Your task to perform on an android device: change your default location settings in chrome Image 0: 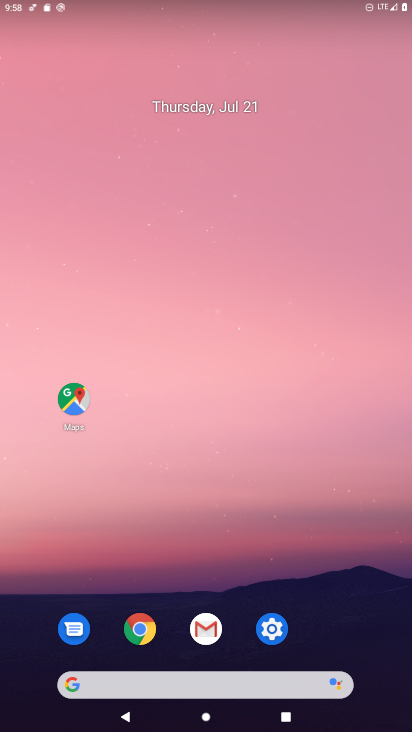
Step 0: click (130, 617)
Your task to perform on an android device: change your default location settings in chrome Image 1: 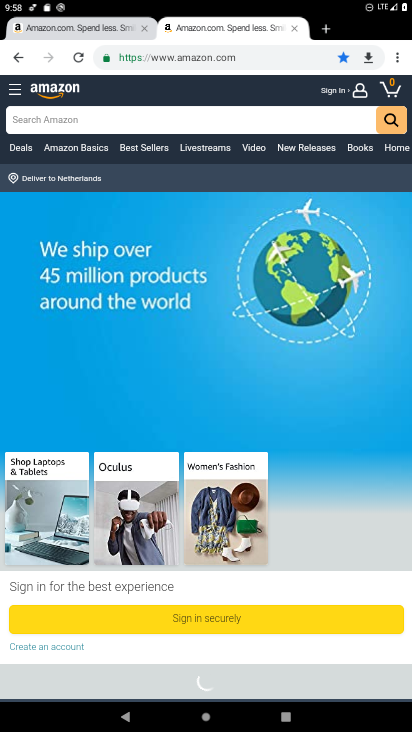
Step 1: click (399, 61)
Your task to perform on an android device: change your default location settings in chrome Image 2: 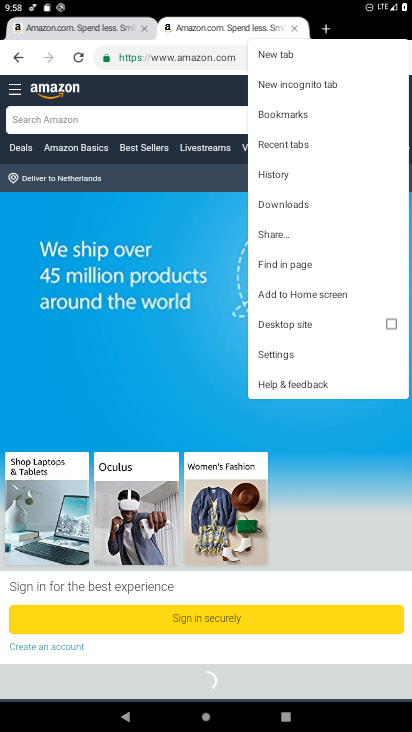
Step 2: click (278, 351)
Your task to perform on an android device: change your default location settings in chrome Image 3: 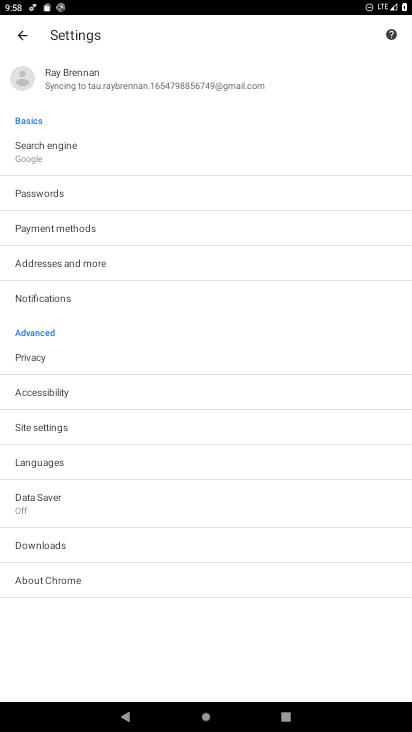
Step 3: click (42, 431)
Your task to perform on an android device: change your default location settings in chrome Image 4: 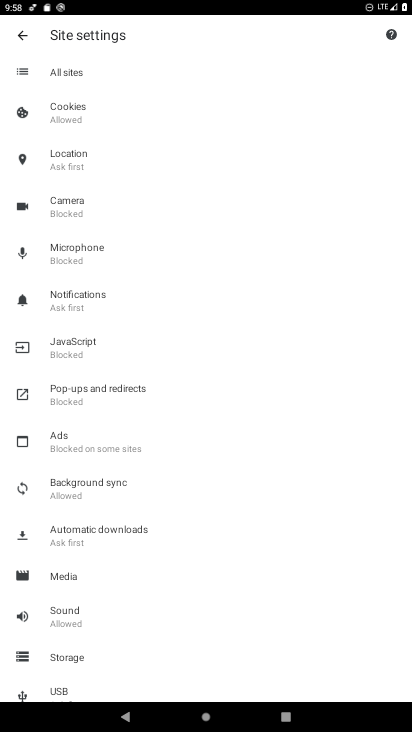
Step 4: click (70, 158)
Your task to perform on an android device: change your default location settings in chrome Image 5: 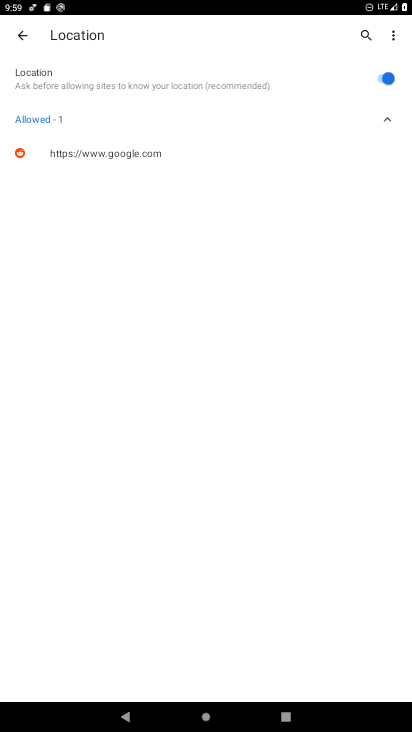
Step 5: click (385, 80)
Your task to perform on an android device: change your default location settings in chrome Image 6: 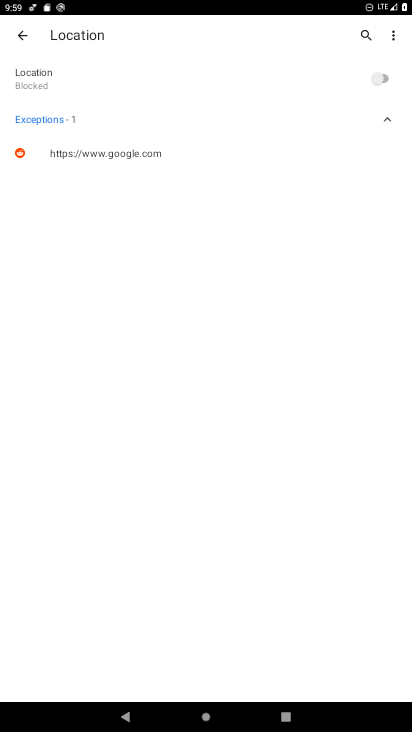
Step 6: task complete